Your task to perform on an android device: Open battery settings Image 0: 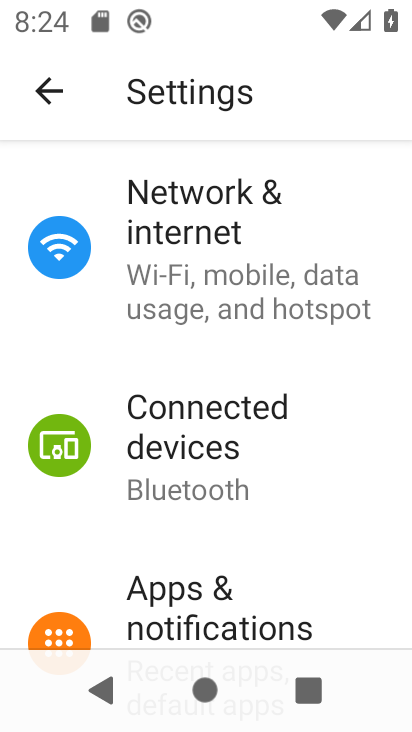
Step 0: press home button
Your task to perform on an android device: Open battery settings Image 1: 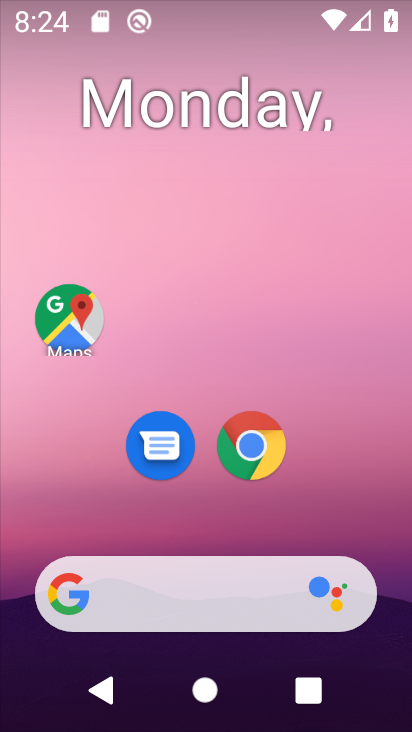
Step 1: drag from (218, 431) to (260, 28)
Your task to perform on an android device: Open battery settings Image 2: 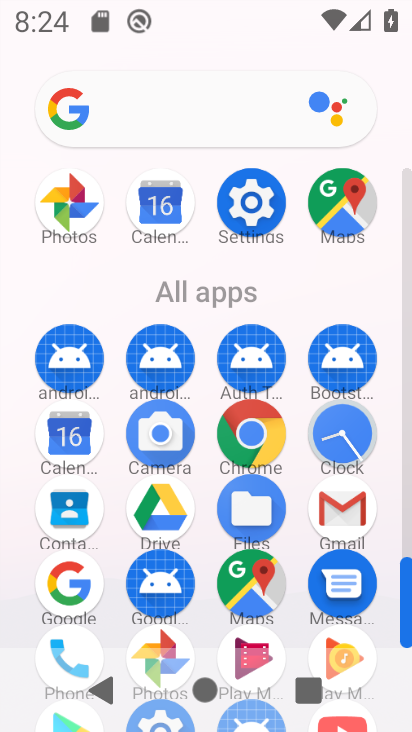
Step 2: click (251, 198)
Your task to perform on an android device: Open battery settings Image 3: 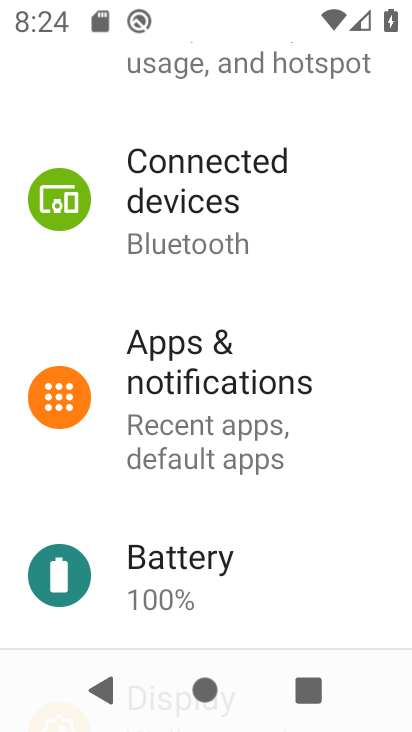
Step 3: click (212, 572)
Your task to perform on an android device: Open battery settings Image 4: 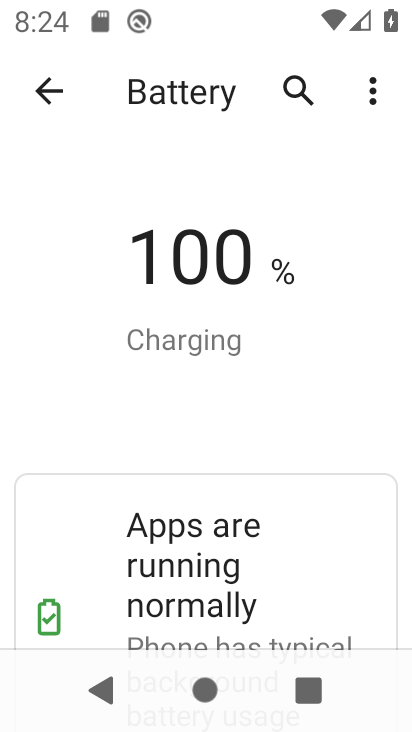
Step 4: task complete